Your task to perform on an android device: turn on notifications settings in the gmail app Image 0: 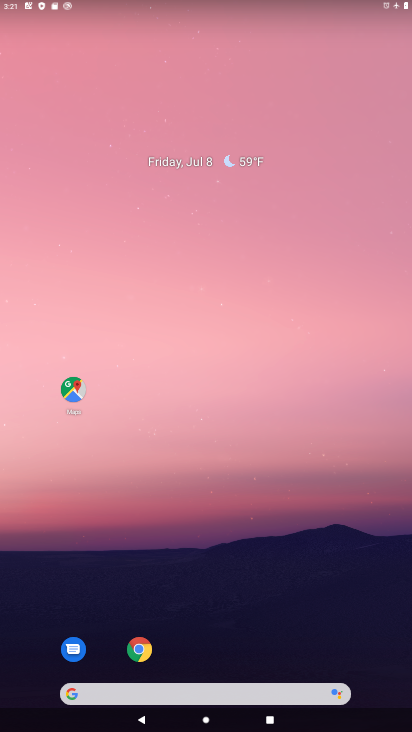
Step 0: drag from (343, 574) to (332, 67)
Your task to perform on an android device: turn on notifications settings in the gmail app Image 1: 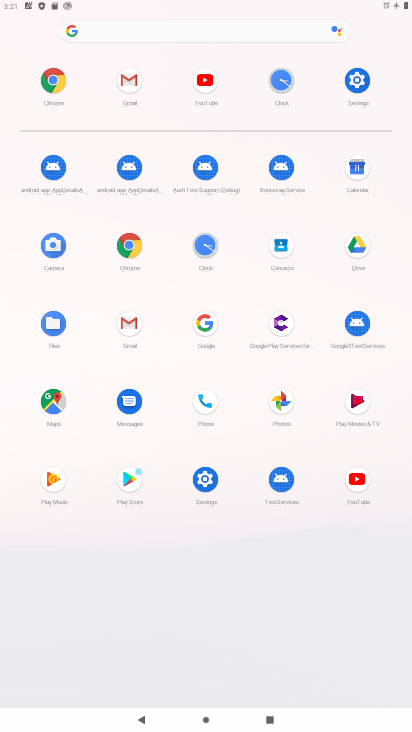
Step 1: click (136, 314)
Your task to perform on an android device: turn on notifications settings in the gmail app Image 2: 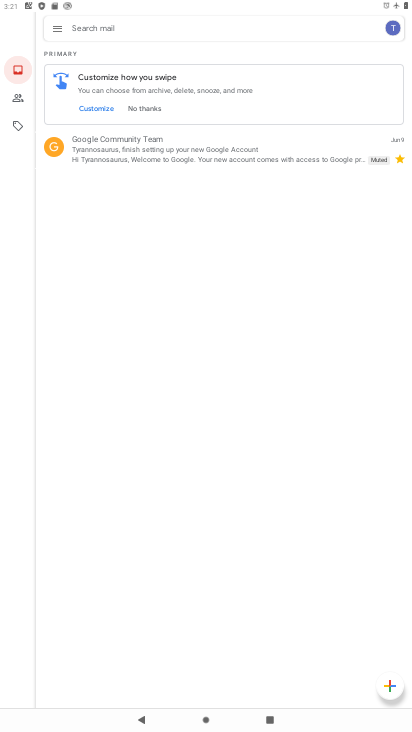
Step 2: click (54, 28)
Your task to perform on an android device: turn on notifications settings in the gmail app Image 3: 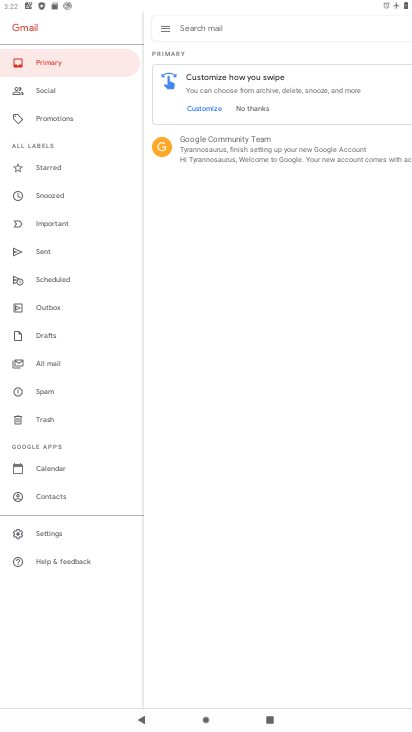
Step 3: click (48, 532)
Your task to perform on an android device: turn on notifications settings in the gmail app Image 4: 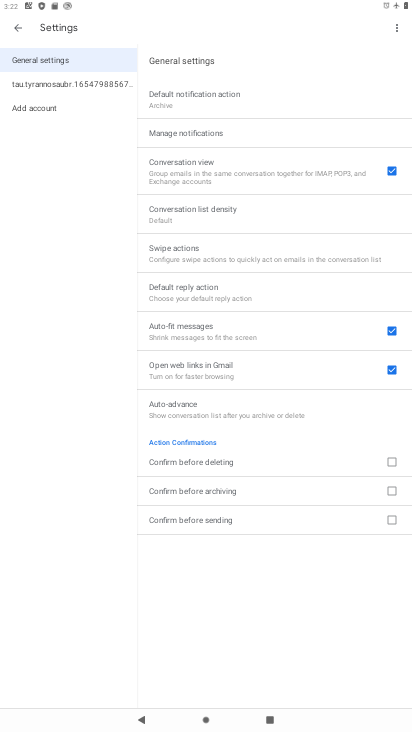
Step 4: click (226, 140)
Your task to perform on an android device: turn on notifications settings in the gmail app Image 5: 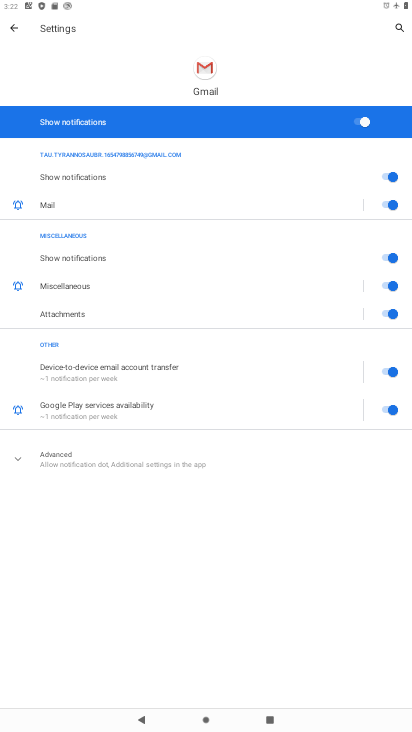
Step 5: task complete